Your task to perform on an android device: toggle javascript in the chrome app Image 0: 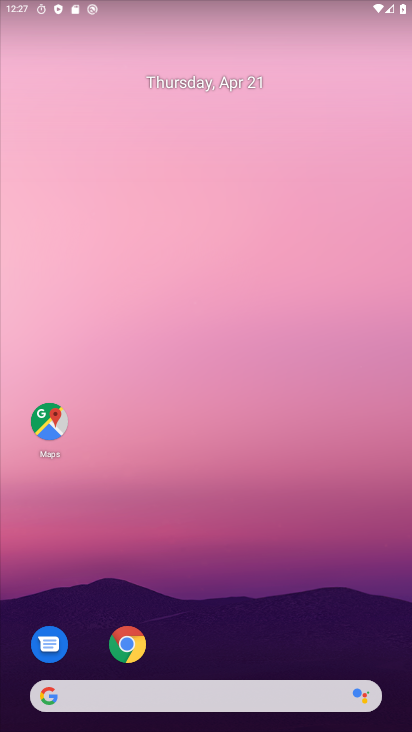
Step 0: click (124, 646)
Your task to perform on an android device: toggle javascript in the chrome app Image 1: 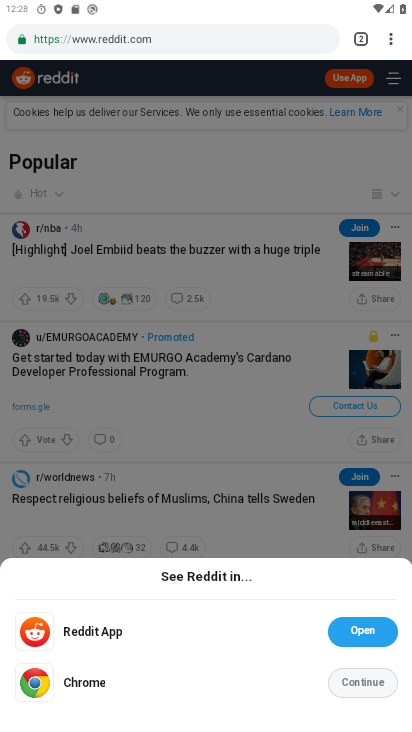
Step 1: drag from (395, 38) to (277, 510)
Your task to perform on an android device: toggle javascript in the chrome app Image 2: 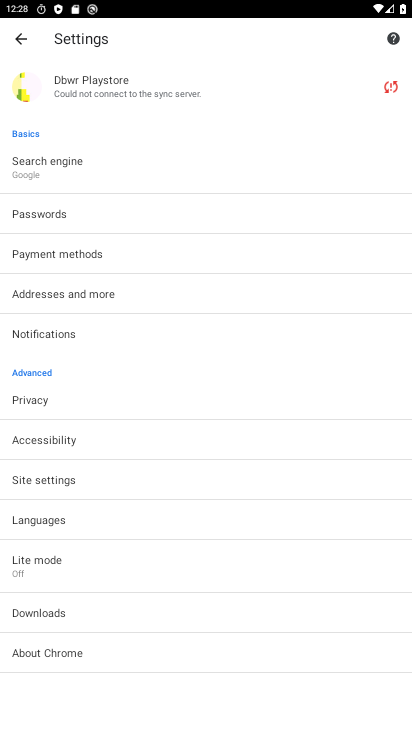
Step 2: click (72, 483)
Your task to perform on an android device: toggle javascript in the chrome app Image 3: 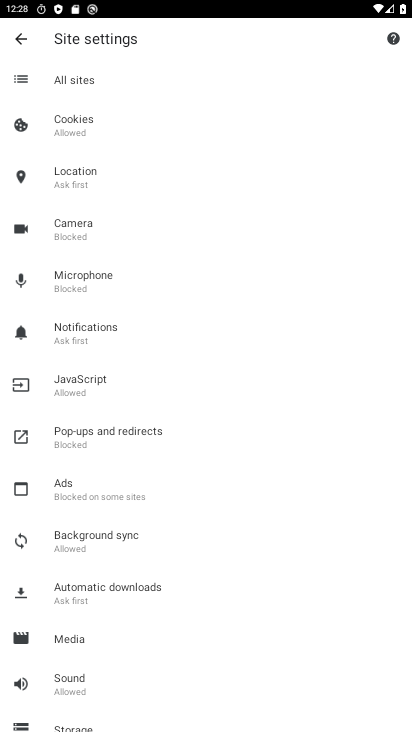
Step 3: click (83, 388)
Your task to perform on an android device: toggle javascript in the chrome app Image 4: 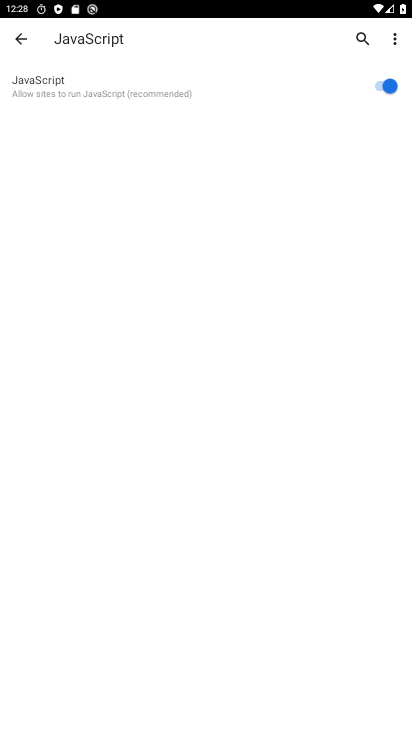
Step 4: click (391, 81)
Your task to perform on an android device: toggle javascript in the chrome app Image 5: 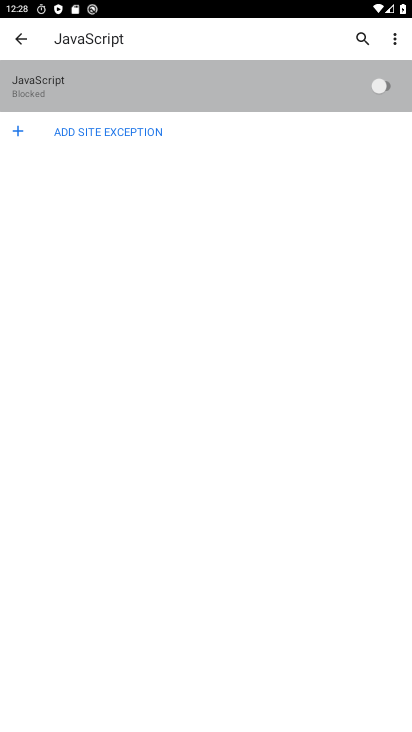
Step 5: task complete